Your task to perform on an android device: What is the news today? Image 0: 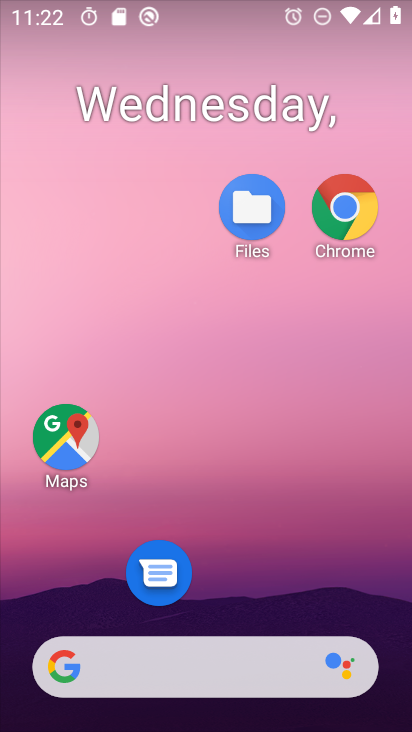
Step 0: drag from (253, 618) to (330, 79)
Your task to perform on an android device: What is the news today? Image 1: 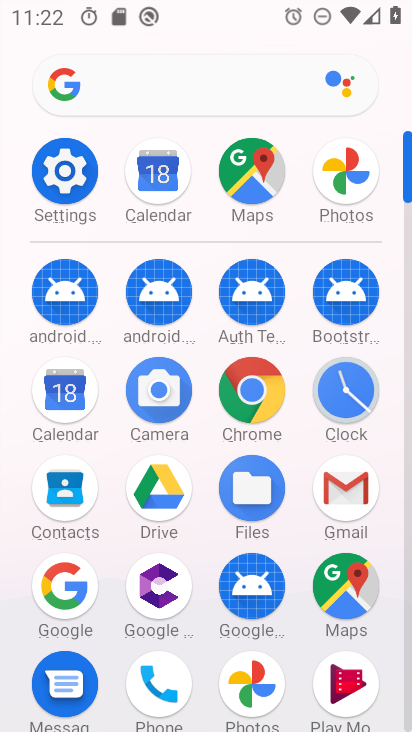
Step 1: click (73, 578)
Your task to perform on an android device: What is the news today? Image 2: 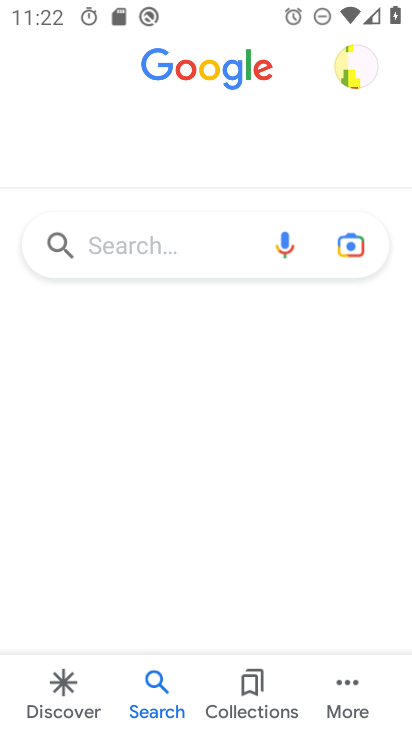
Step 2: click (133, 244)
Your task to perform on an android device: What is the news today? Image 3: 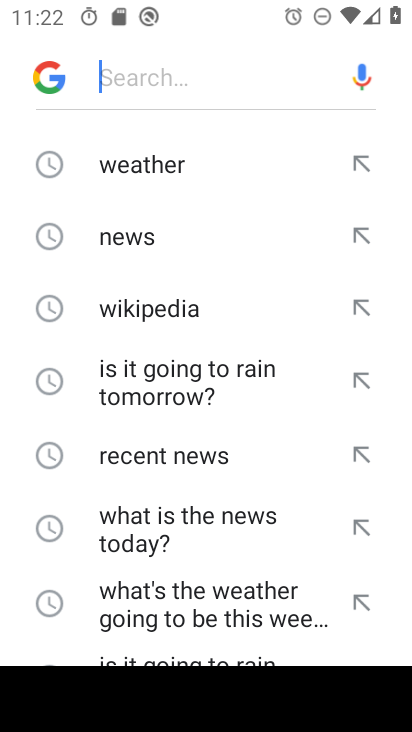
Step 3: click (148, 239)
Your task to perform on an android device: What is the news today? Image 4: 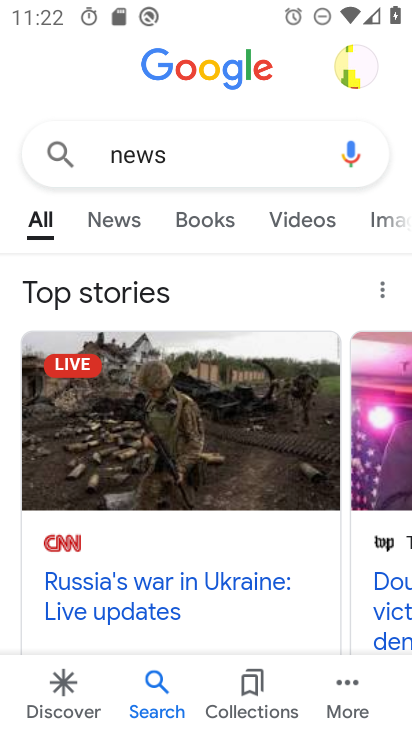
Step 4: task complete